Your task to perform on an android device: uninstall "Gboard" Image 0: 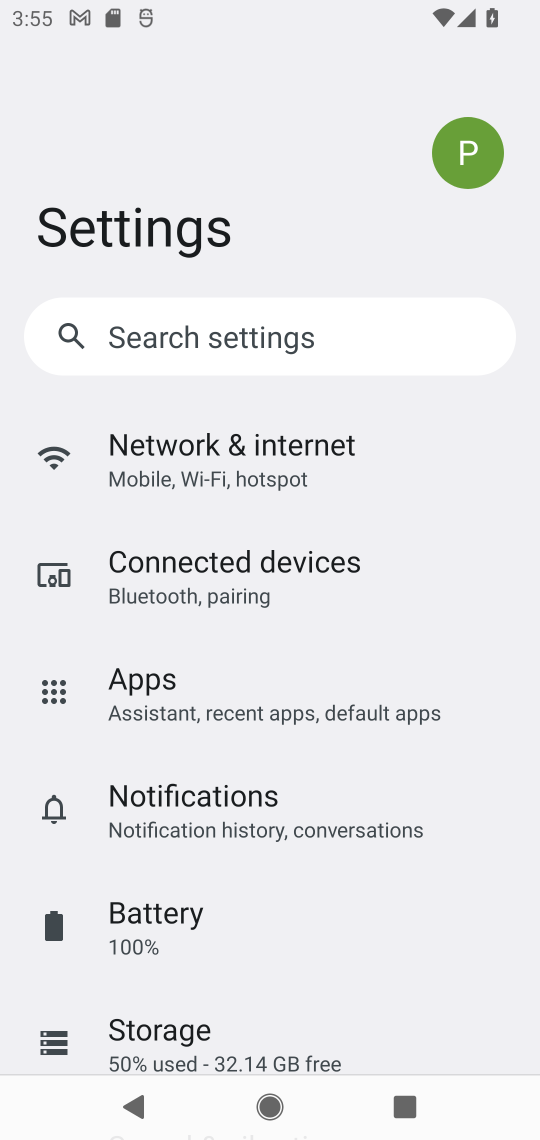
Step 0: press home button
Your task to perform on an android device: uninstall "Gboard" Image 1: 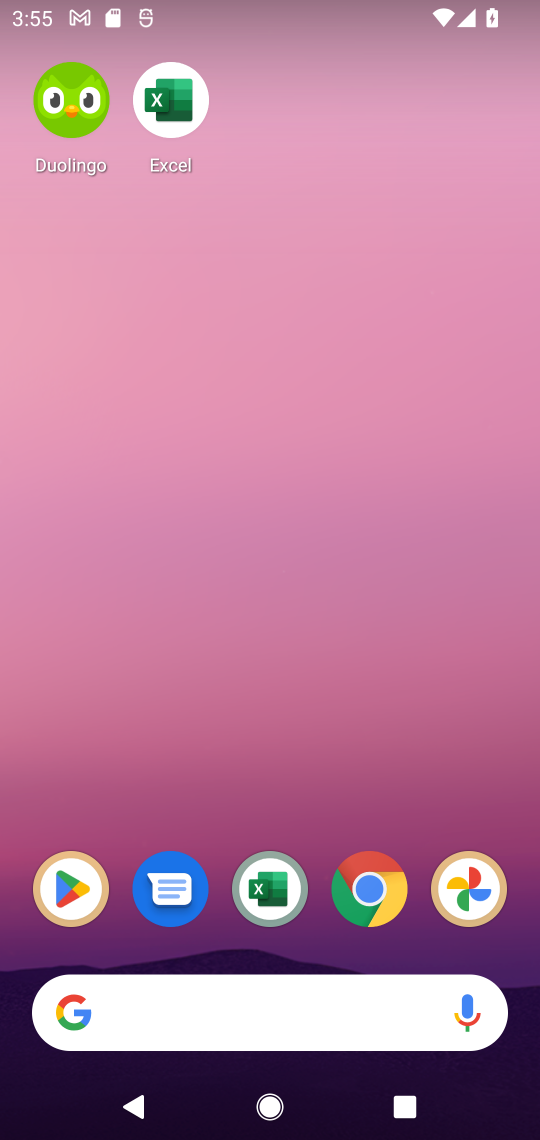
Step 1: drag from (424, 780) to (402, 70)
Your task to perform on an android device: uninstall "Gboard" Image 2: 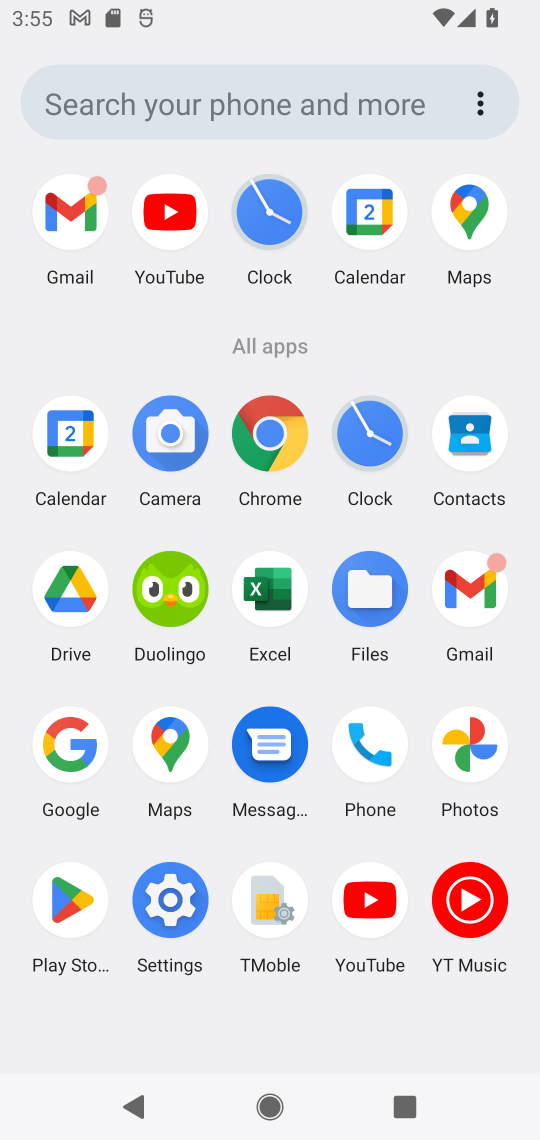
Step 2: click (73, 899)
Your task to perform on an android device: uninstall "Gboard" Image 3: 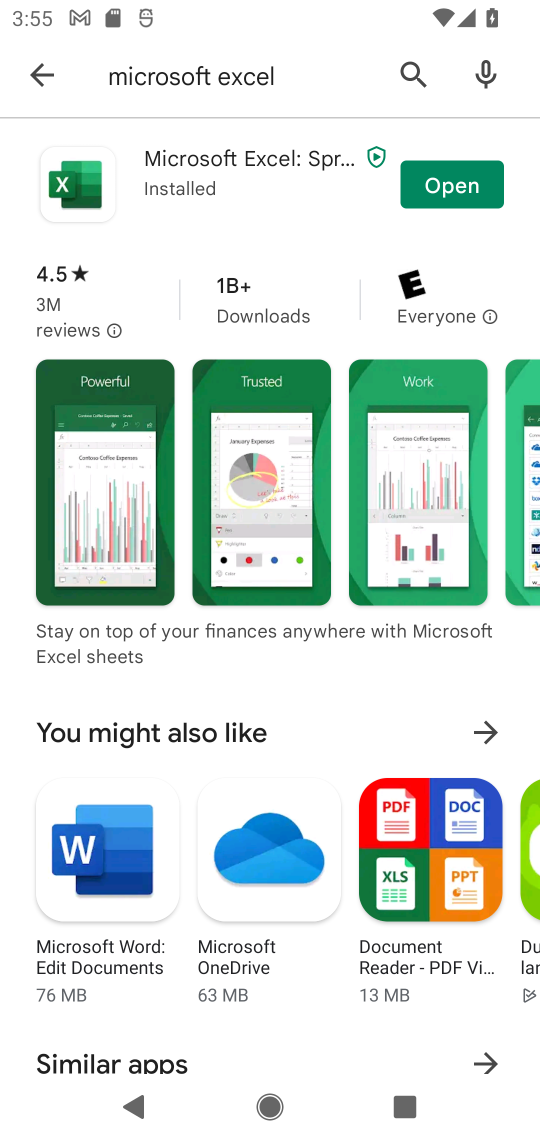
Step 3: click (403, 75)
Your task to perform on an android device: uninstall "Gboard" Image 4: 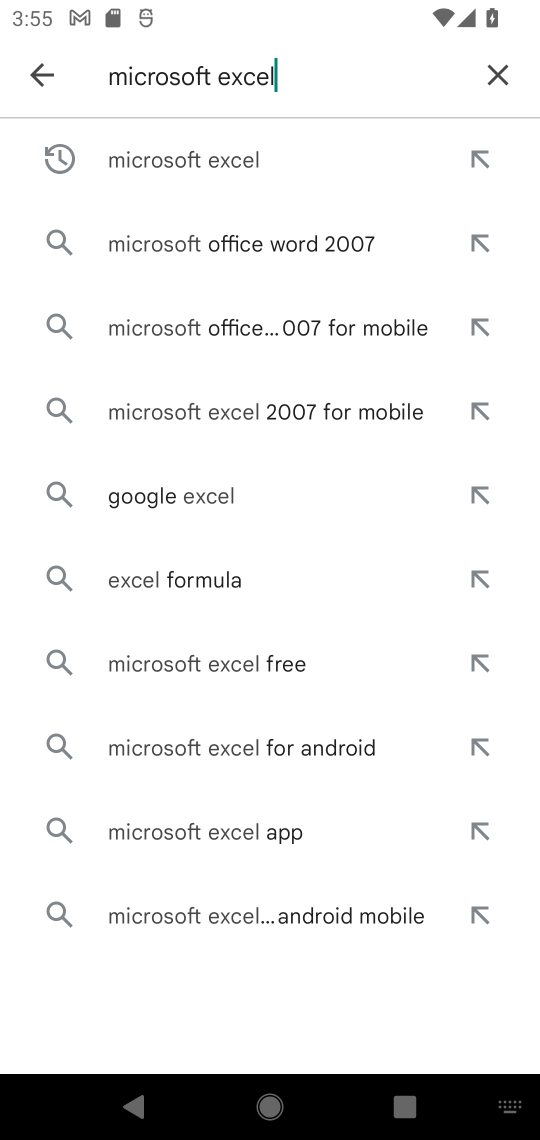
Step 4: click (498, 76)
Your task to perform on an android device: uninstall "Gboard" Image 5: 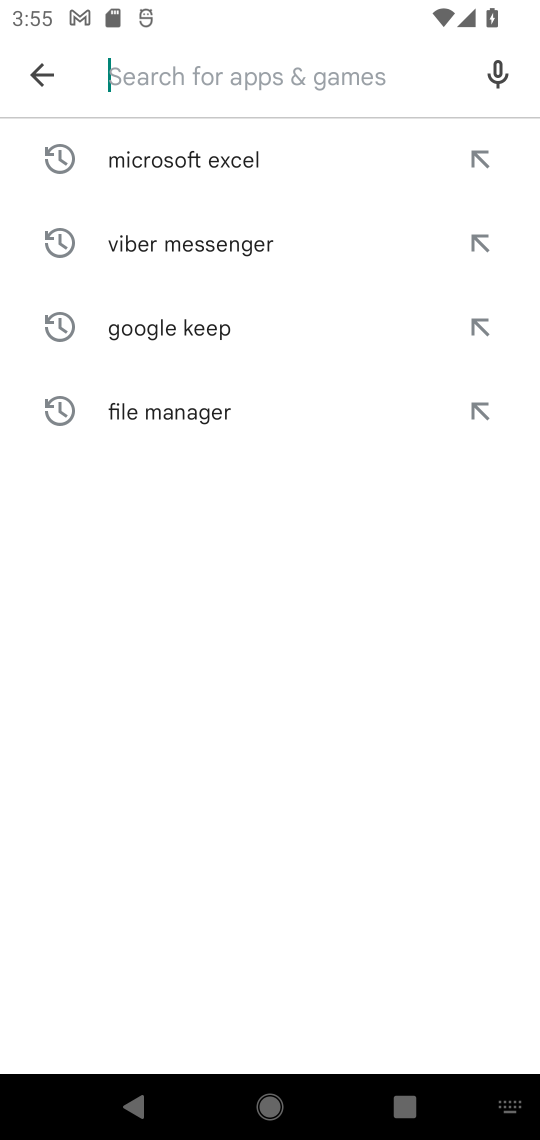
Step 5: type "gboard"
Your task to perform on an android device: uninstall "Gboard" Image 6: 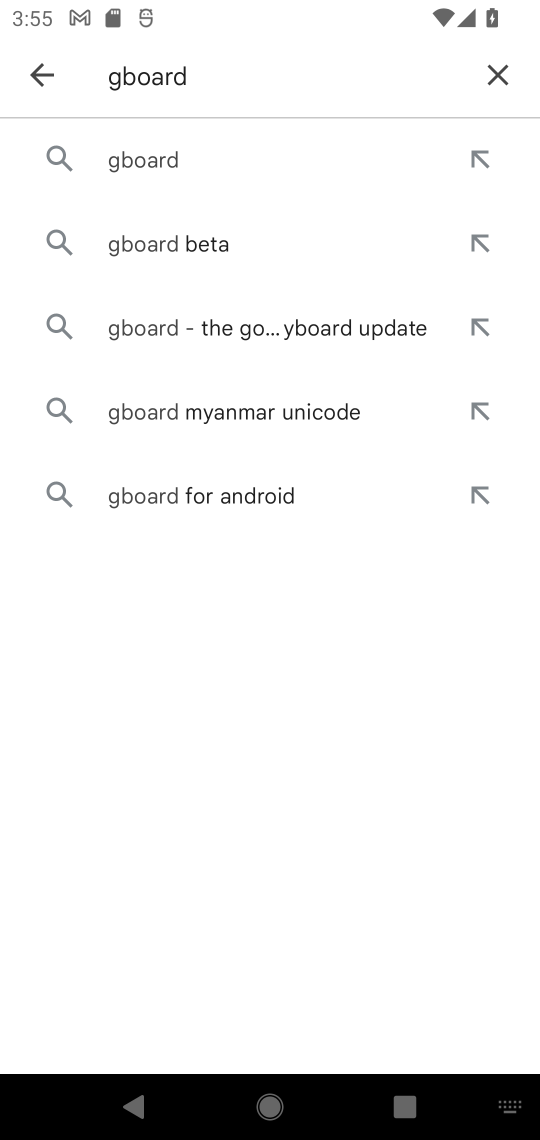
Step 6: click (317, 161)
Your task to perform on an android device: uninstall "Gboard" Image 7: 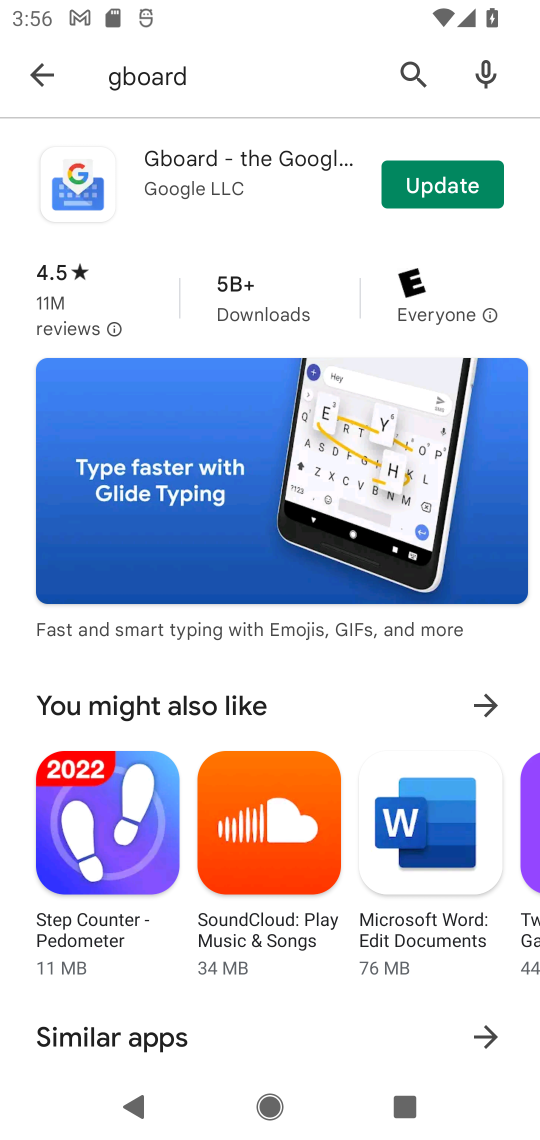
Step 7: task complete